Your task to perform on an android device: Turn off the flashlight Image 0: 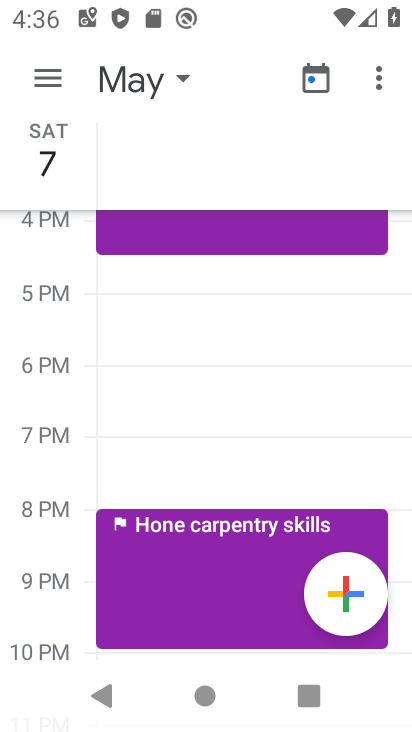
Step 0: press back button
Your task to perform on an android device: Turn off the flashlight Image 1: 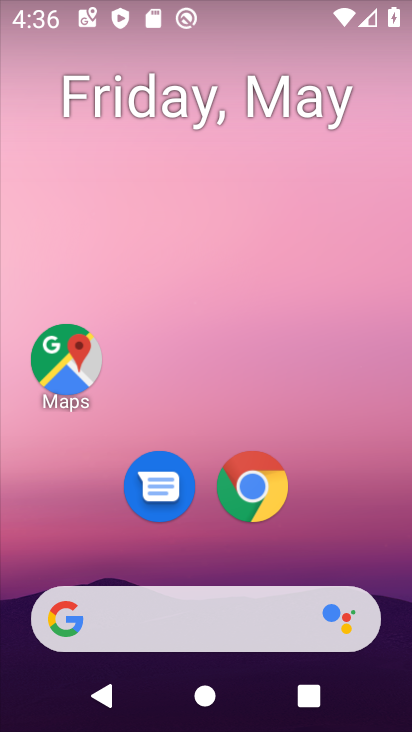
Step 1: drag from (403, 672) to (347, 49)
Your task to perform on an android device: Turn off the flashlight Image 2: 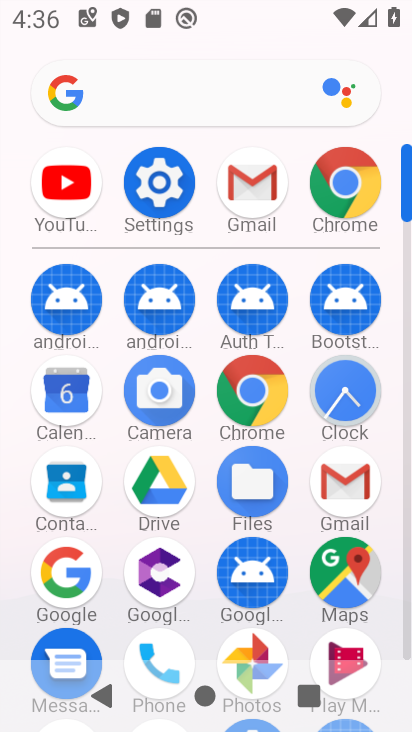
Step 2: drag from (11, 560) to (1, 224)
Your task to perform on an android device: Turn off the flashlight Image 3: 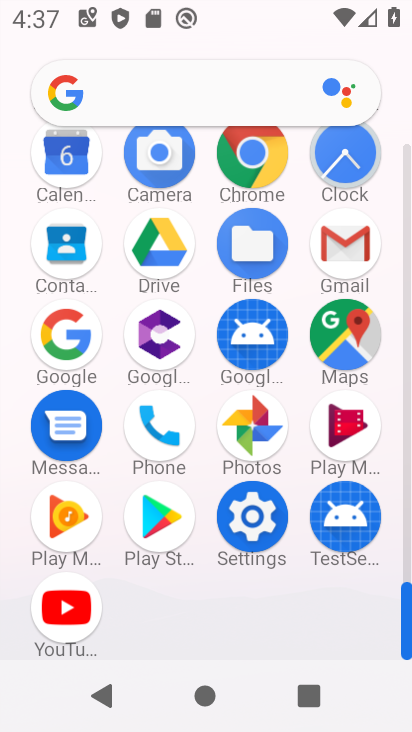
Step 3: drag from (13, 606) to (31, 262)
Your task to perform on an android device: Turn off the flashlight Image 4: 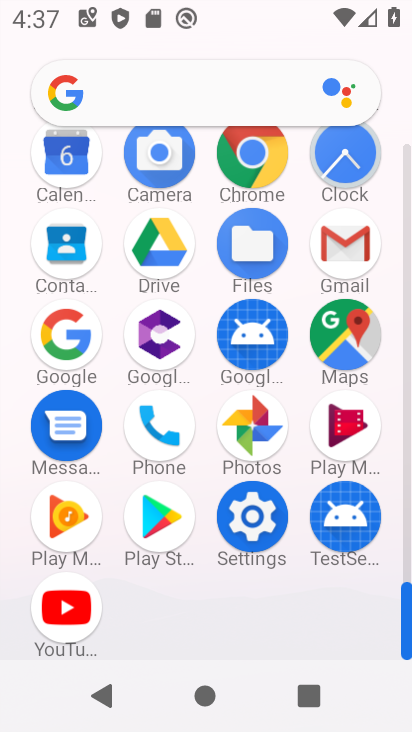
Step 4: click (249, 511)
Your task to perform on an android device: Turn off the flashlight Image 5: 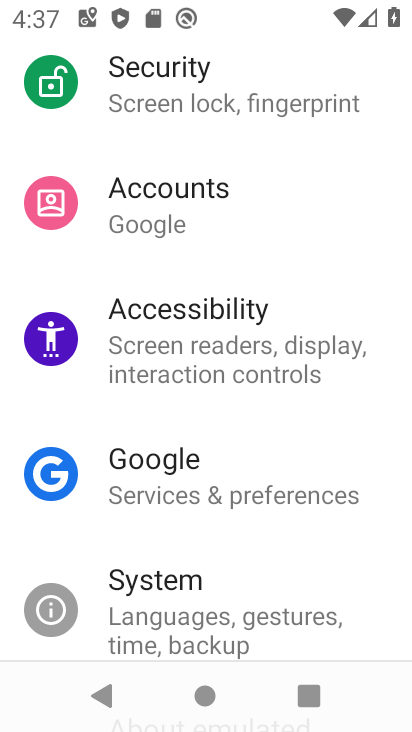
Step 5: drag from (297, 564) to (292, 157)
Your task to perform on an android device: Turn off the flashlight Image 6: 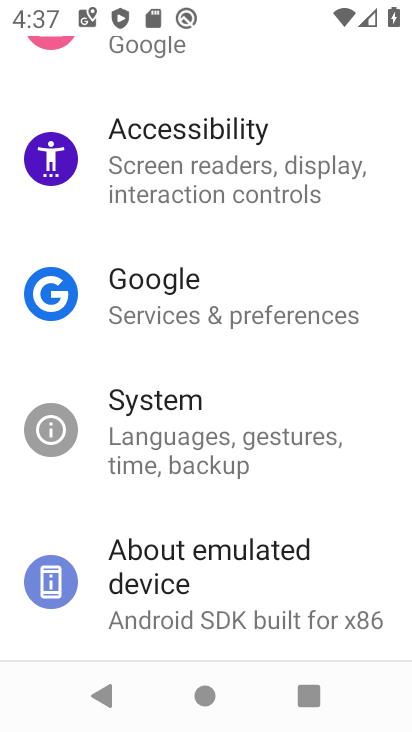
Step 6: drag from (279, 583) to (286, 118)
Your task to perform on an android device: Turn off the flashlight Image 7: 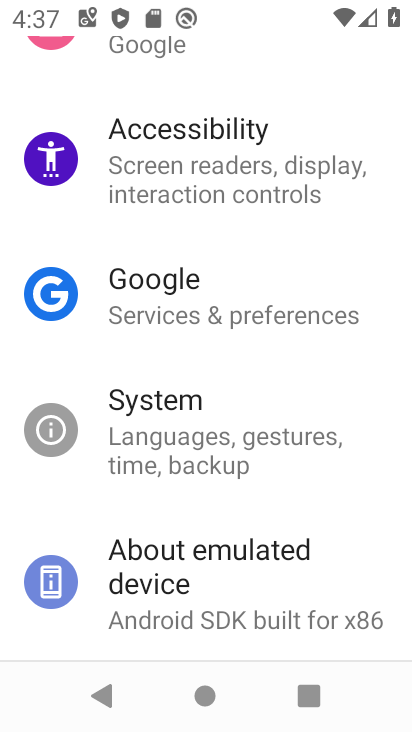
Step 7: drag from (285, 118) to (288, 512)
Your task to perform on an android device: Turn off the flashlight Image 8: 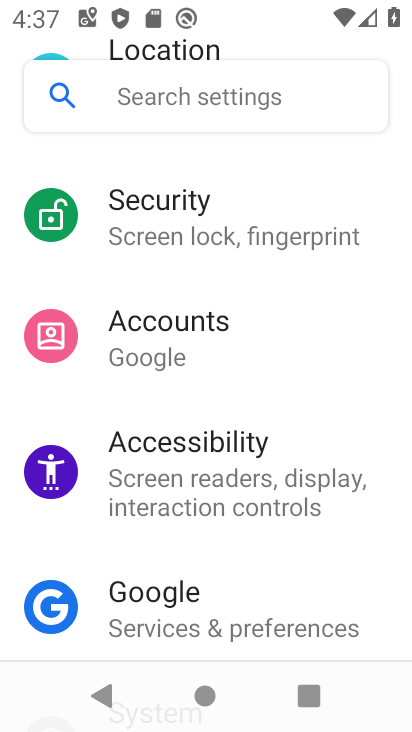
Step 8: drag from (257, 196) to (270, 647)
Your task to perform on an android device: Turn off the flashlight Image 9: 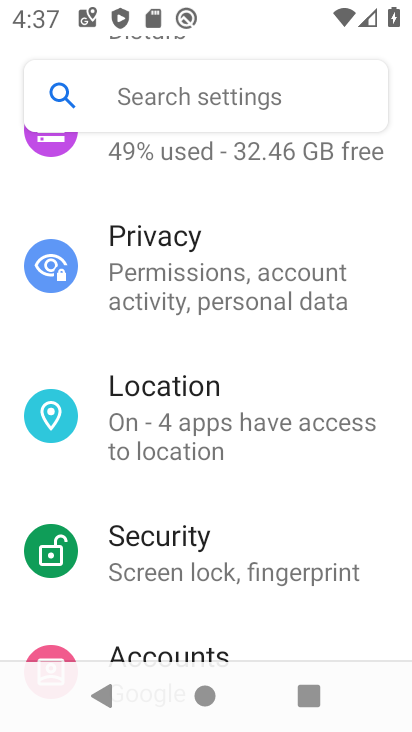
Step 9: drag from (265, 249) to (276, 579)
Your task to perform on an android device: Turn off the flashlight Image 10: 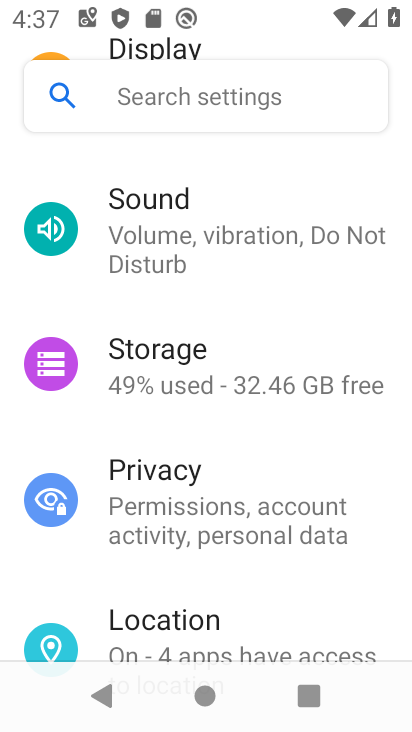
Step 10: drag from (277, 313) to (280, 626)
Your task to perform on an android device: Turn off the flashlight Image 11: 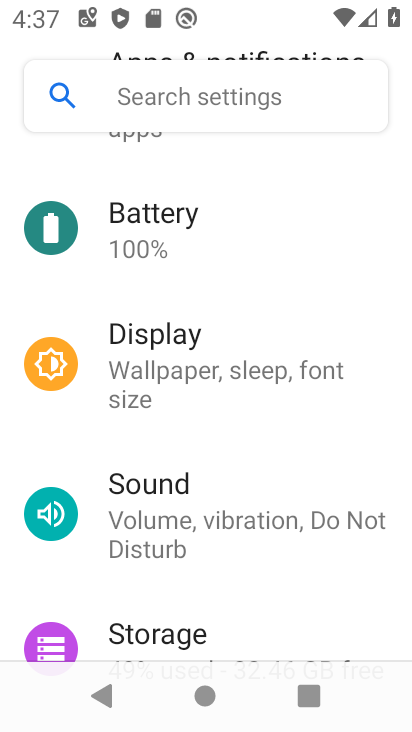
Step 11: drag from (290, 232) to (263, 675)
Your task to perform on an android device: Turn off the flashlight Image 12: 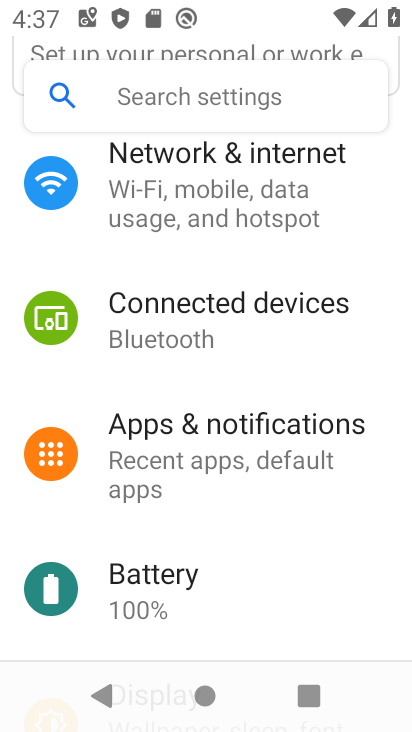
Step 12: drag from (307, 192) to (312, 591)
Your task to perform on an android device: Turn off the flashlight Image 13: 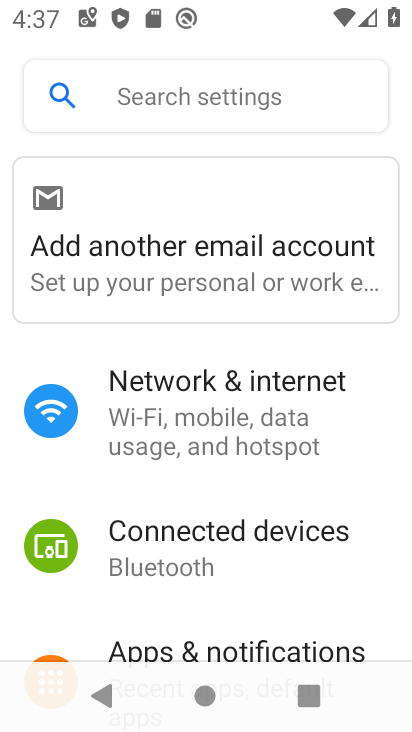
Step 13: click (289, 422)
Your task to perform on an android device: Turn off the flashlight Image 14: 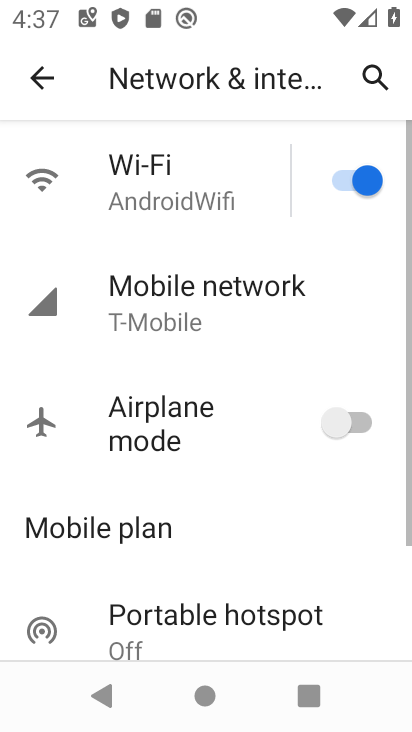
Step 14: drag from (223, 541) to (247, 142)
Your task to perform on an android device: Turn off the flashlight Image 15: 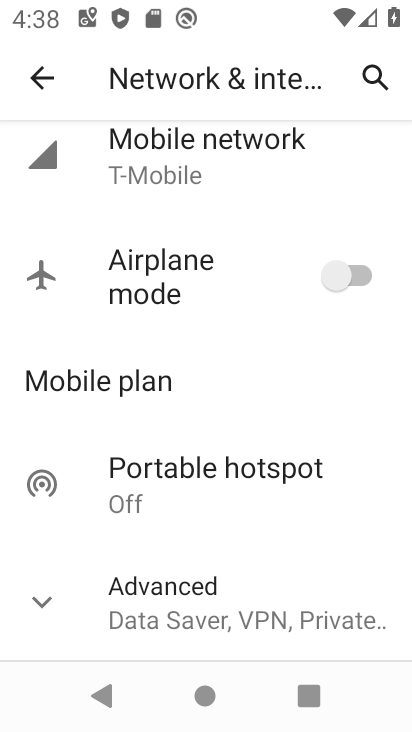
Step 15: drag from (271, 576) to (266, 205)
Your task to perform on an android device: Turn off the flashlight Image 16: 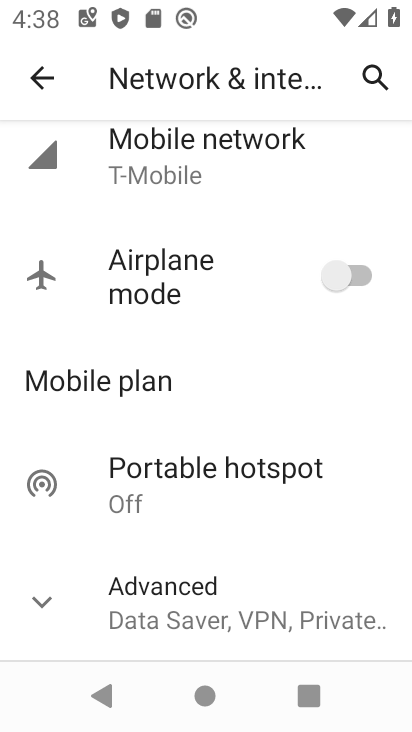
Step 16: drag from (244, 143) to (243, 628)
Your task to perform on an android device: Turn off the flashlight Image 17: 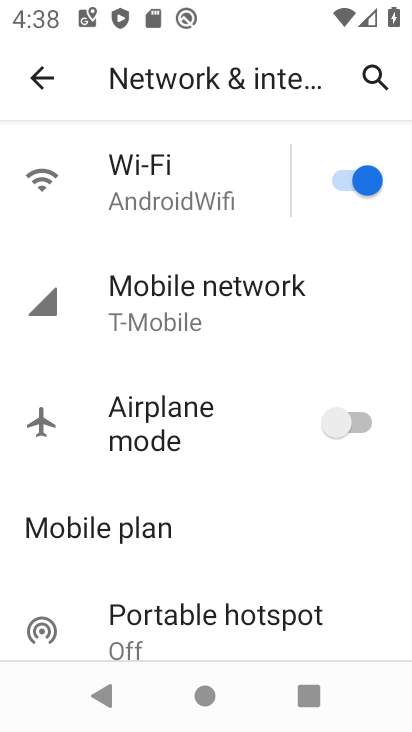
Step 17: drag from (143, 497) to (180, 139)
Your task to perform on an android device: Turn off the flashlight Image 18: 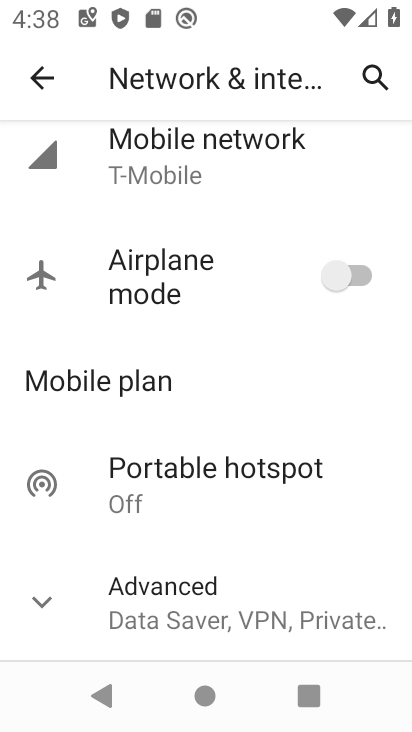
Step 18: drag from (233, 466) to (255, 238)
Your task to perform on an android device: Turn off the flashlight Image 19: 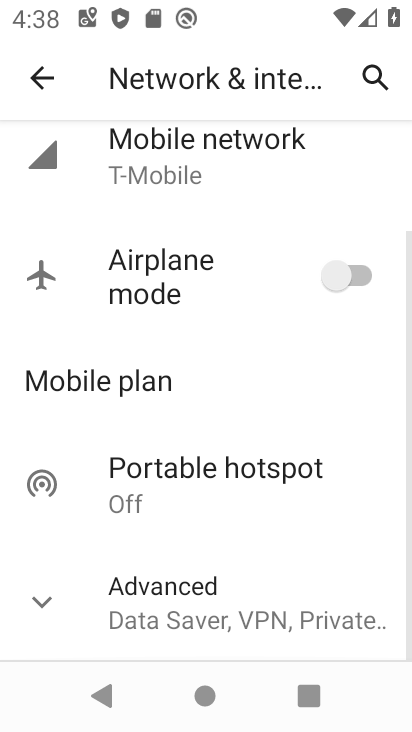
Step 19: click (60, 609)
Your task to perform on an android device: Turn off the flashlight Image 20: 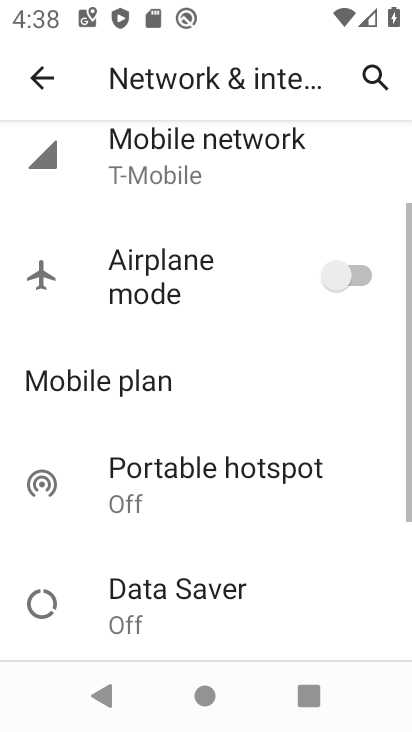
Step 20: task complete